Your task to perform on an android device: Open the calendar app, open the side menu, and click the "Day" option Image 0: 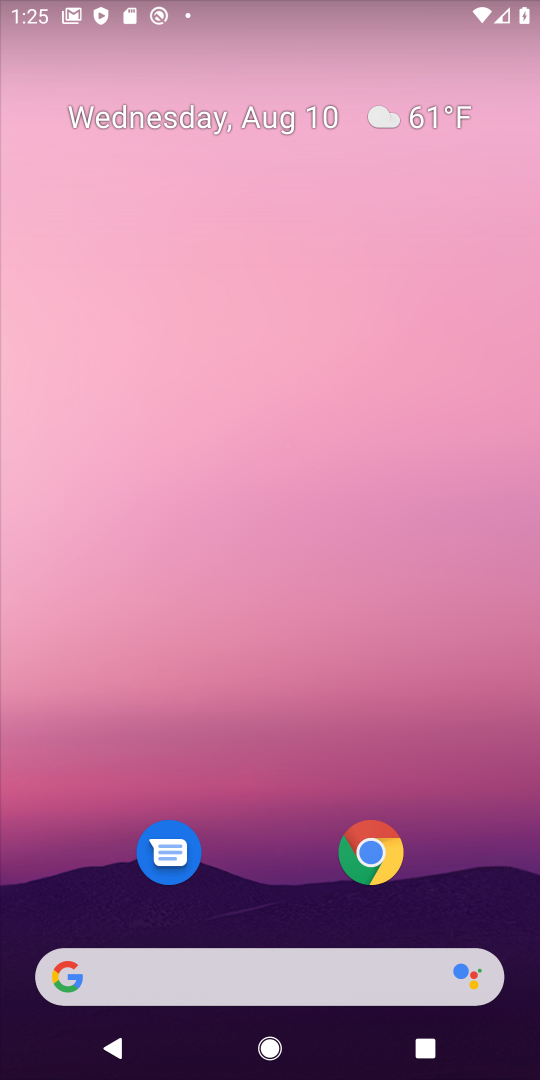
Step 0: drag from (312, 882) to (298, 136)
Your task to perform on an android device: Open the calendar app, open the side menu, and click the "Day" option Image 1: 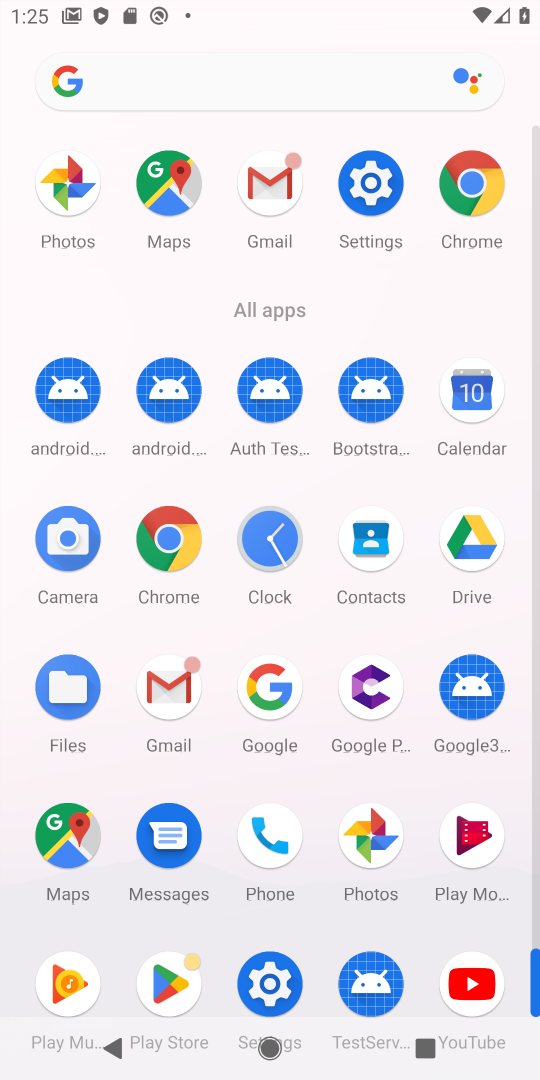
Step 1: click (470, 383)
Your task to perform on an android device: Open the calendar app, open the side menu, and click the "Day" option Image 2: 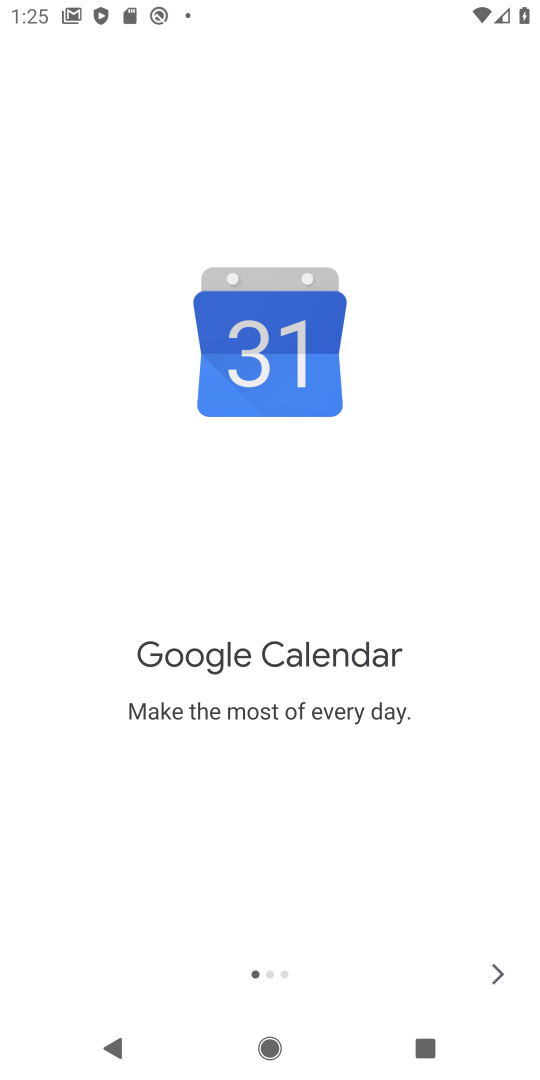
Step 2: click (497, 964)
Your task to perform on an android device: Open the calendar app, open the side menu, and click the "Day" option Image 3: 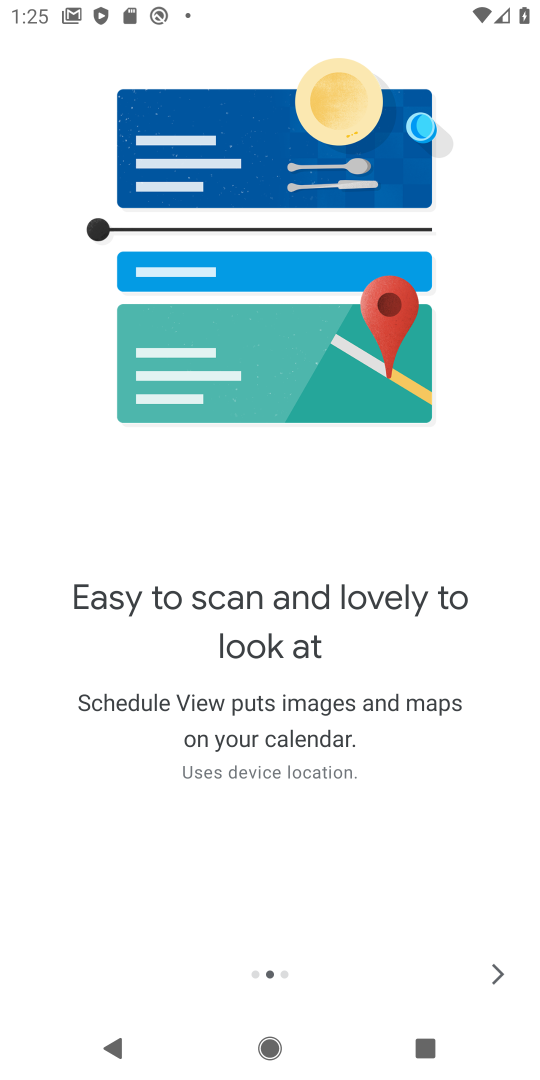
Step 3: click (497, 964)
Your task to perform on an android device: Open the calendar app, open the side menu, and click the "Day" option Image 4: 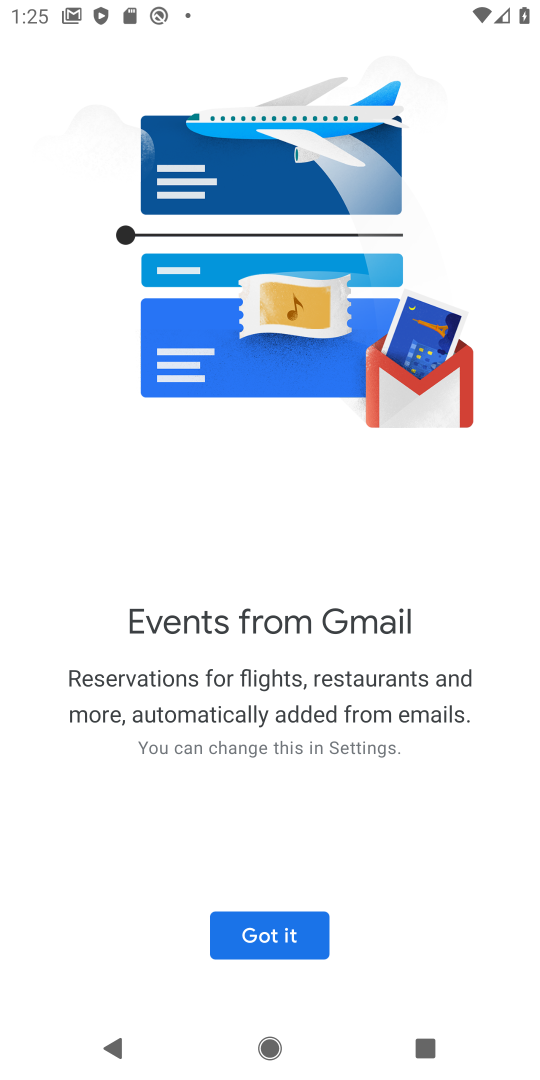
Step 4: click (237, 944)
Your task to perform on an android device: Open the calendar app, open the side menu, and click the "Day" option Image 5: 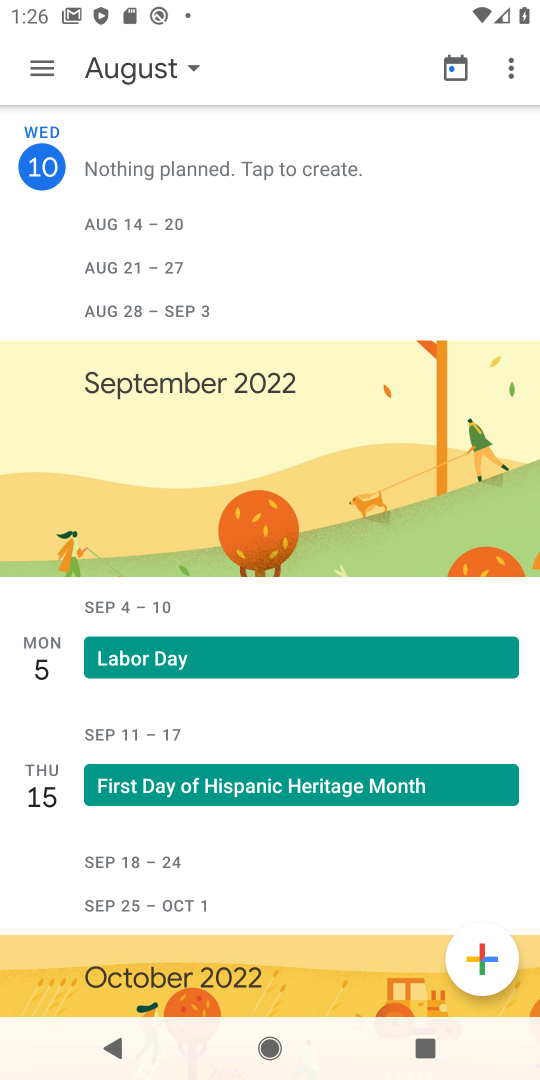
Step 5: click (49, 55)
Your task to perform on an android device: Open the calendar app, open the side menu, and click the "Day" option Image 6: 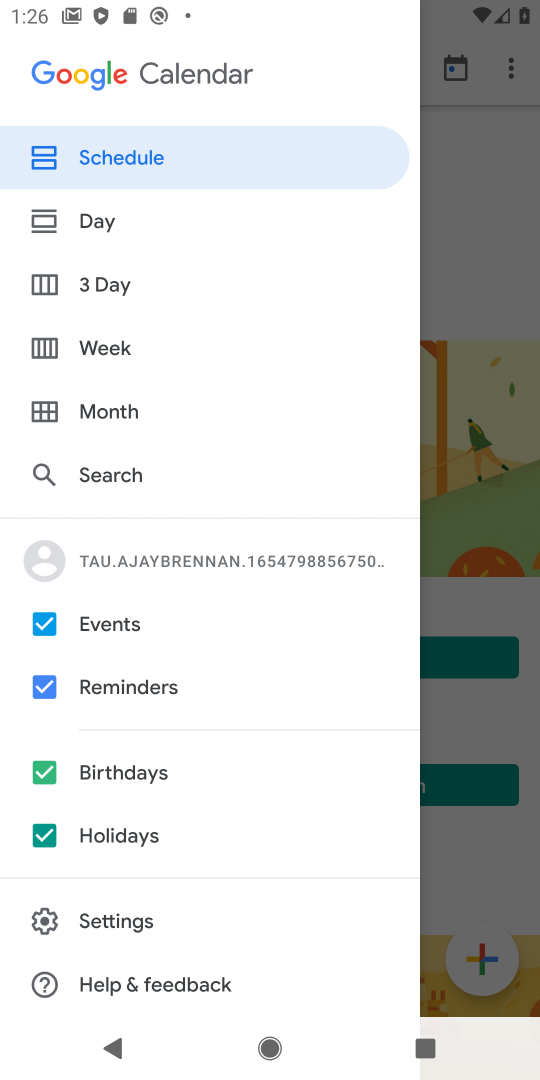
Step 6: click (101, 222)
Your task to perform on an android device: Open the calendar app, open the side menu, and click the "Day" option Image 7: 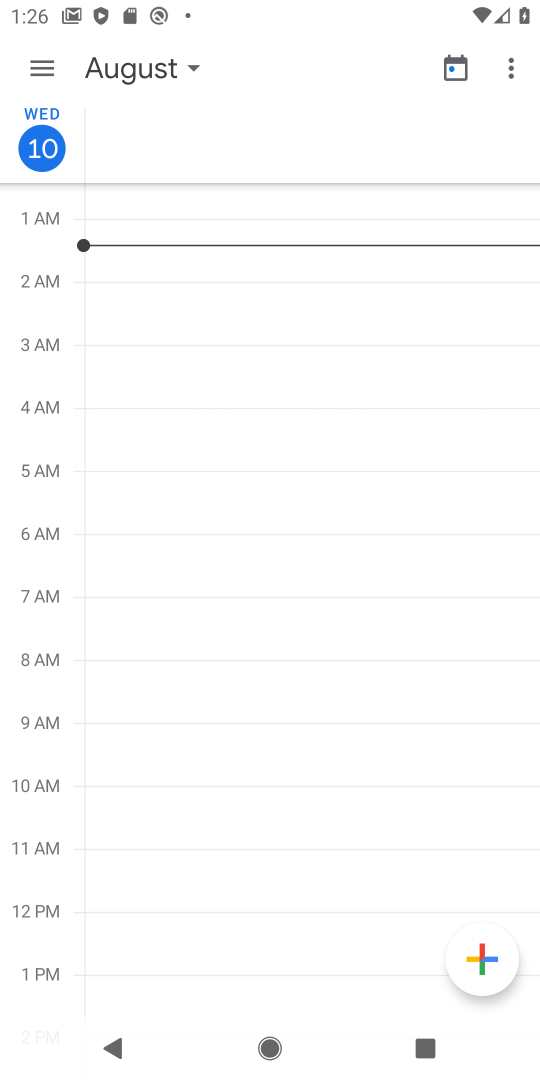
Step 7: task complete